Your task to perform on an android device: Go to notification settings Image 0: 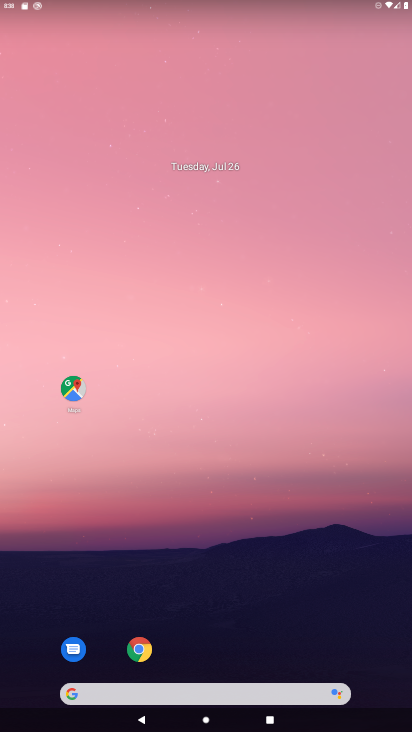
Step 0: drag from (199, 661) to (203, 82)
Your task to perform on an android device: Go to notification settings Image 1: 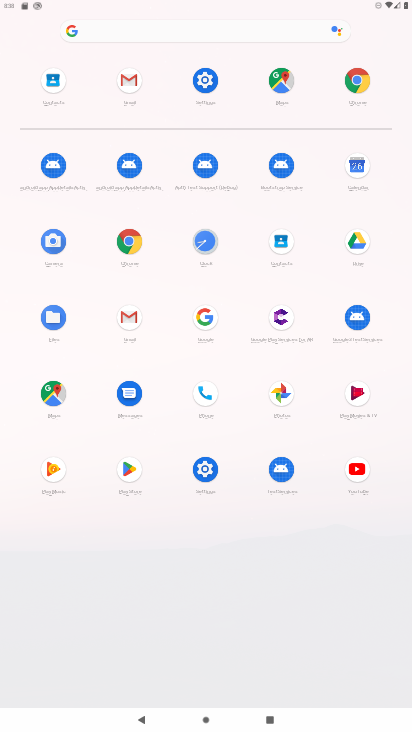
Step 1: click (204, 92)
Your task to perform on an android device: Go to notification settings Image 2: 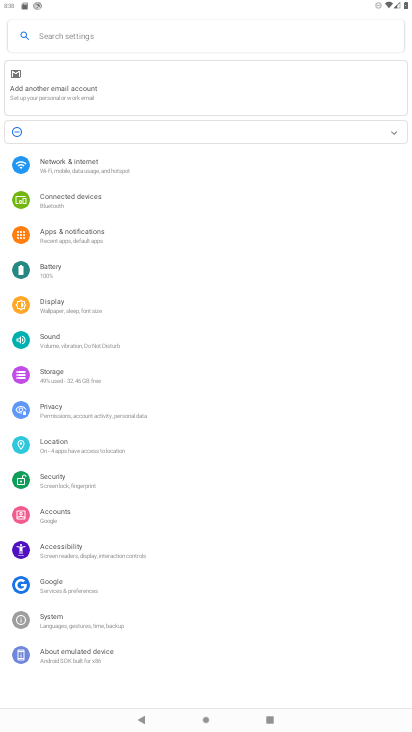
Step 2: click (96, 225)
Your task to perform on an android device: Go to notification settings Image 3: 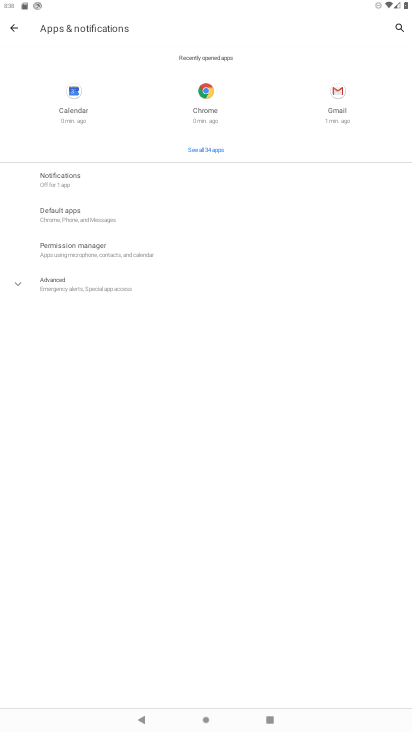
Step 3: task complete